Your task to perform on an android device: Open accessibility settings Image 0: 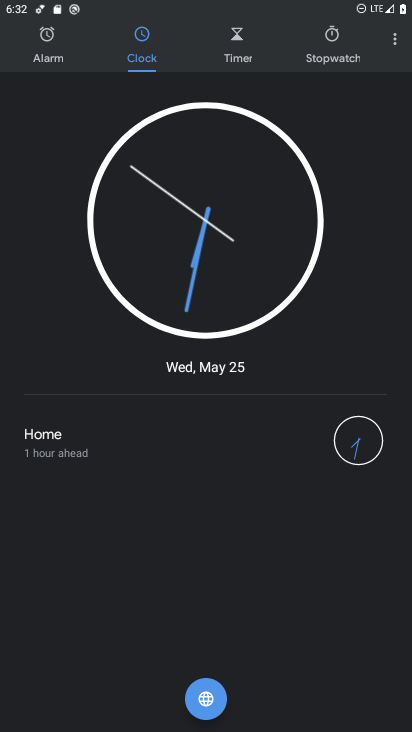
Step 0: press home button
Your task to perform on an android device: Open accessibility settings Image 1: 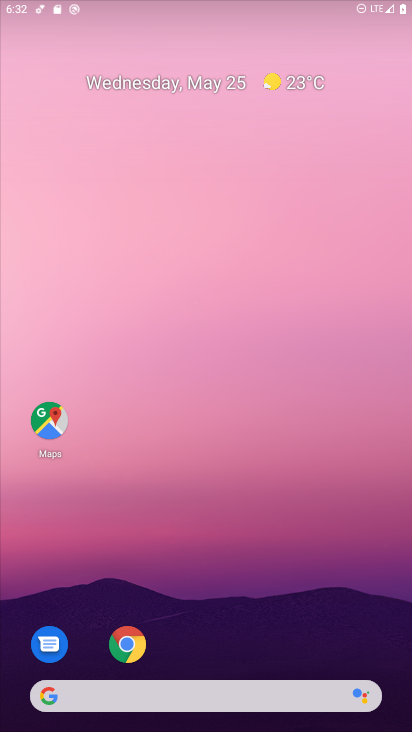
Step 1: drag from (386, 652) to (250, 50)
Your task to perform on an android device: Open accessibility settings Image 2: 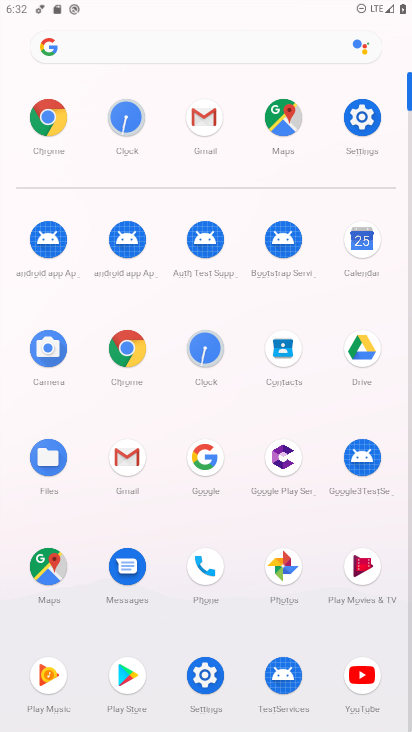
Step 2: click (362, 118)
Your task to perform on an android device: Open accessibility settings Image 3: 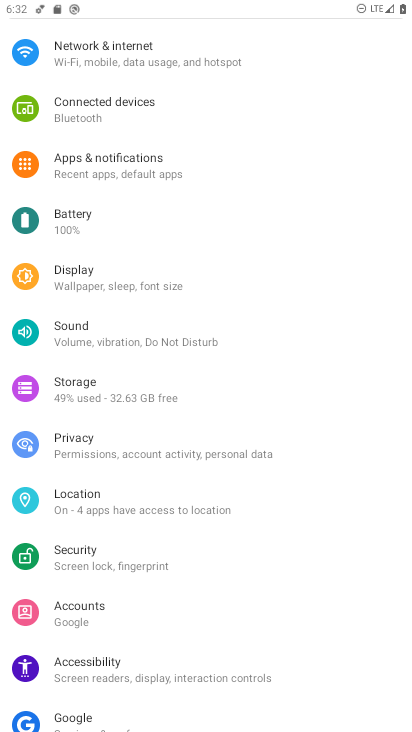
Step 3: click (124, 657)
Your task to perform on an android device: Open accessibility settings Image 4: 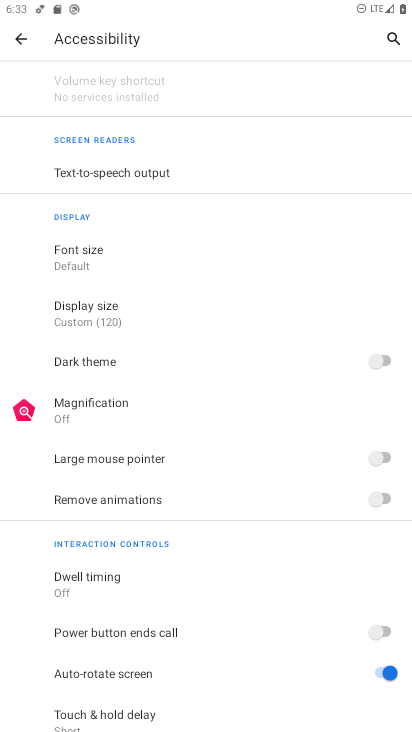
Step 4: task complete